Your task to perform on an android device: Open Wikipedia Image 0: 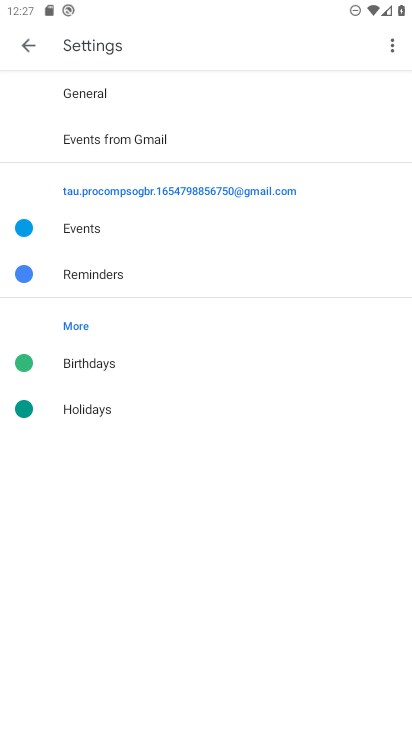
Step 0: press home button
Your task to perform on an android device: Open Wikipedia Image 1: 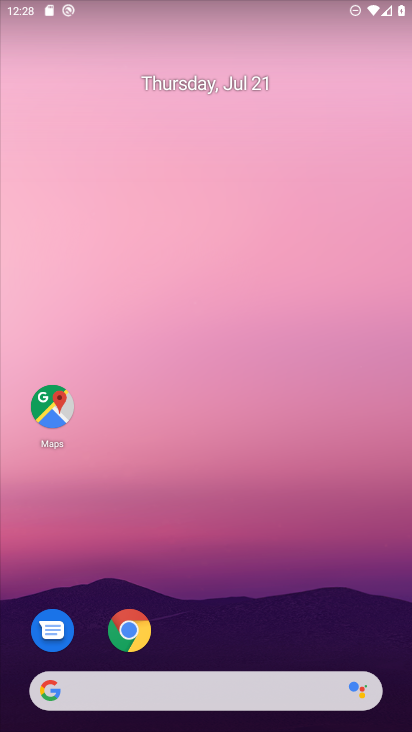
Step 1: drag from (163, 652) to (258, 126)
Your task to perform on an android device: Open Wikipedia Image 2: 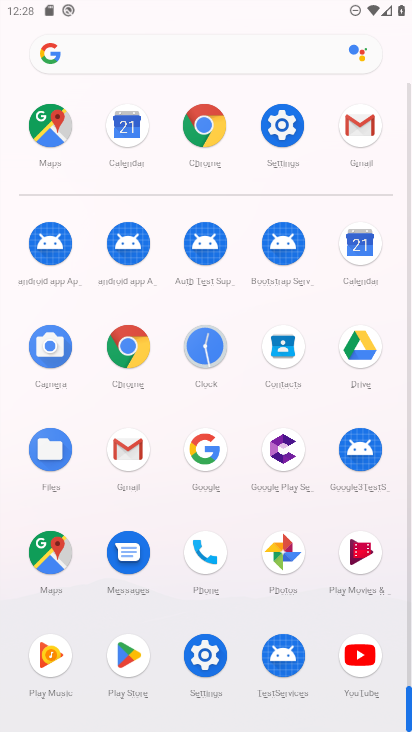
Step 2: click (197, 119)
Your task to perform on an android device: Open Wikipedia Image 3: 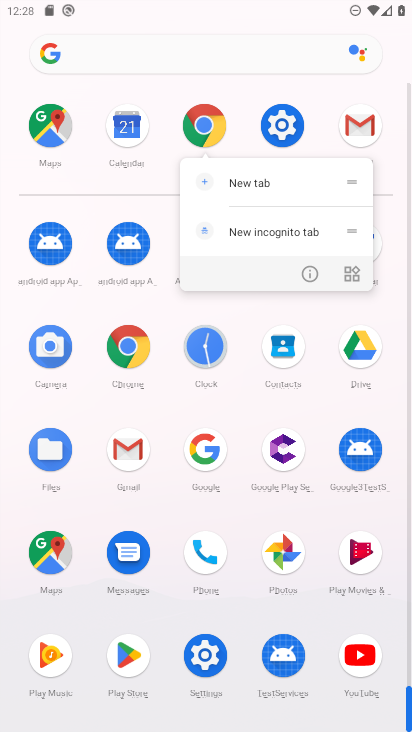
Step 3: click (302, 270)
Your task to perform on an android device: Open Wikipedia Image 4: 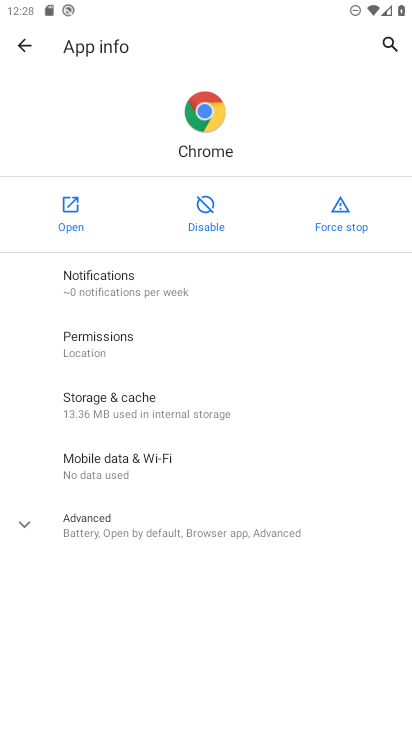
Step 4: click (81, 217)
Your task to perform on an android device: Open Wikipedia Image 5: 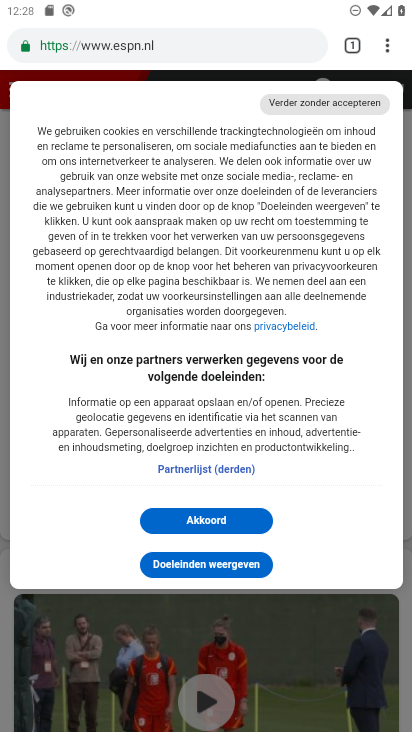
Step 5: click (170, 50)
Your task to perform on an android device: Open Wikipedia Image 6: 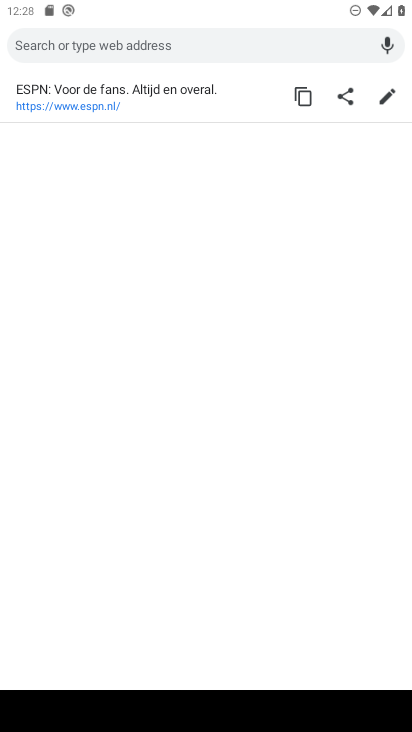
Step 6: type "wikipedia"
Your task to perform on an android device: Open Wikipedia Image 7: 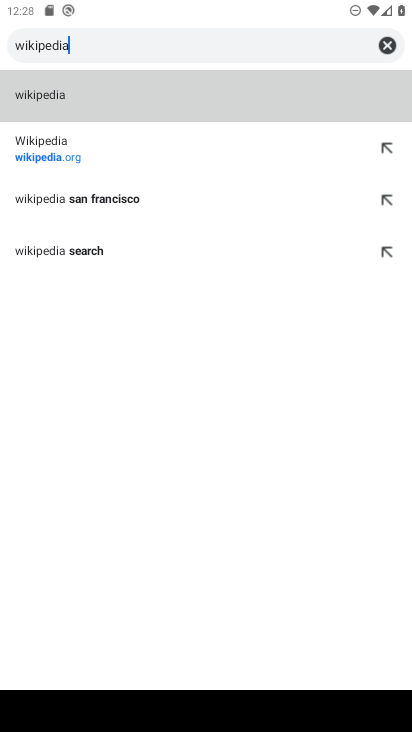
Step 7: click (34, 97)
Your task to perform on an android device: Open Wikipedia Image 8: 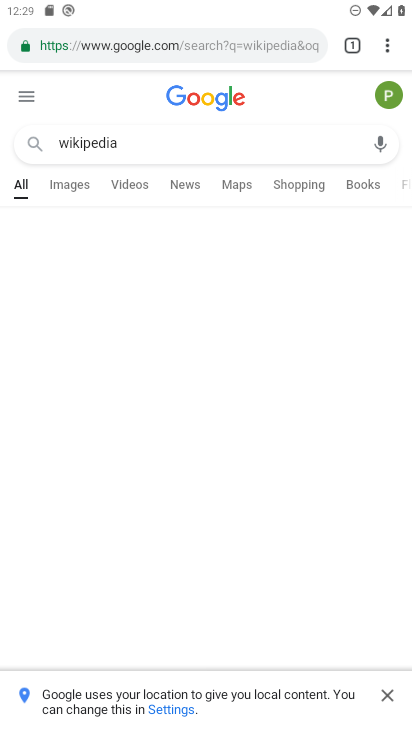
Step 8: drag from (235, 462) to (260, 289)
Your task to perform on an android device: Open Wikipedia Image 9: 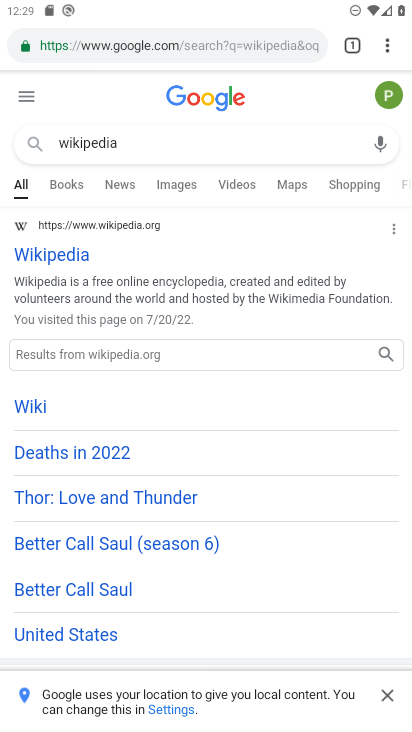
Step 9: click (45, 251)
Your task to perform on an android device: Open Wikipedia Image 10: 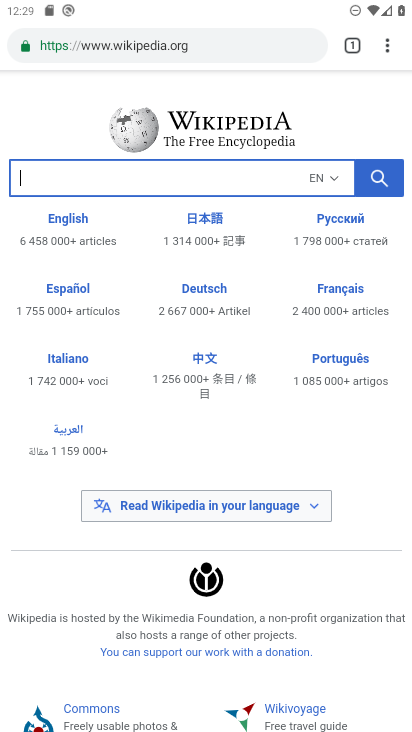
Step 10: task complete